Your task to perform on an android device: delete a single message in the gmail app Image 0: 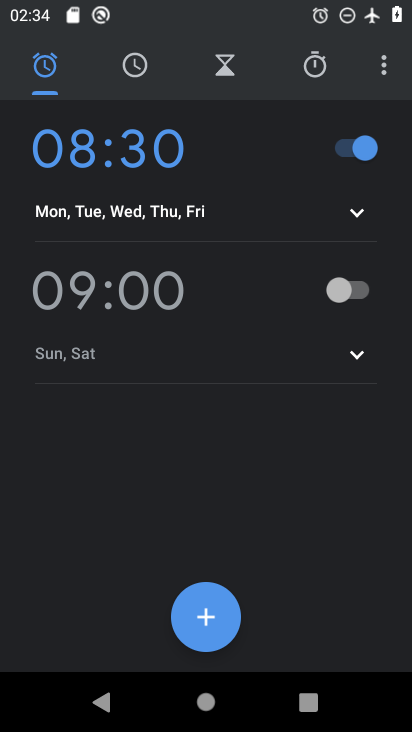
Step 0: press home button
Your task to perform on an android device: delete a single message in the gmail app Image 1: 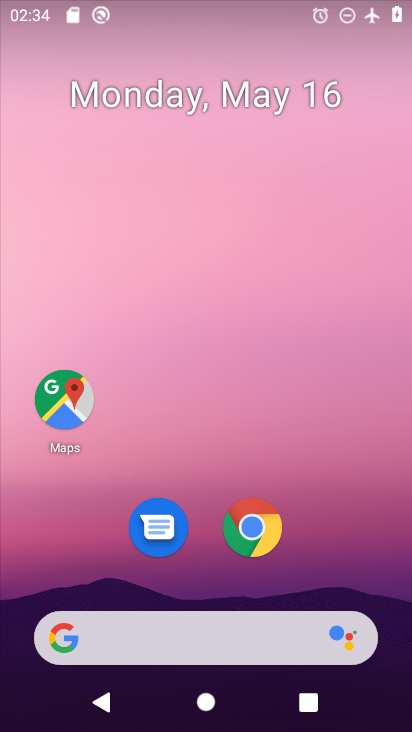
Step 1: drag from (306, 550) to (300, 95)
Your task to perform on an android device: delete a single message in the gmail app Image 2: 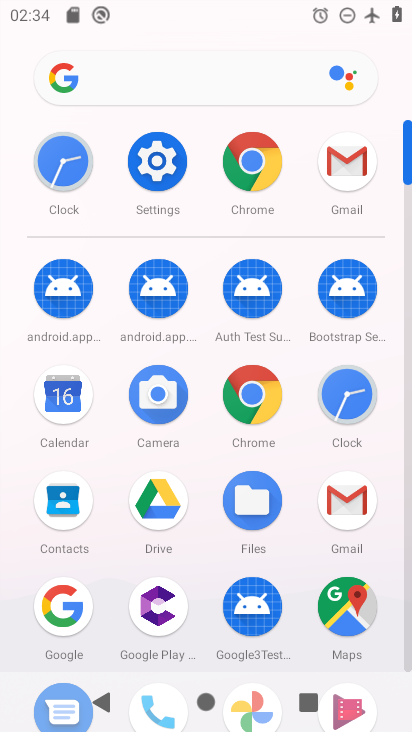
Step 2: click (341, 497)
Your task to perform on an android device: delete a single message in the gmail app Image 3: 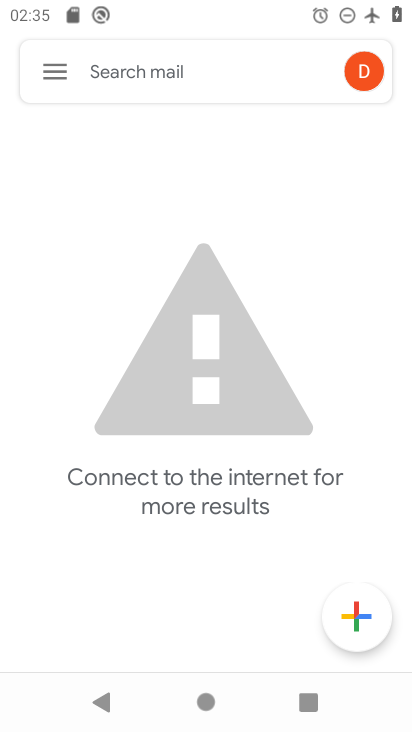
Step 3: task complete